Your task to perform on an android device: allow notifications from all sites in the chrome app Image 0: 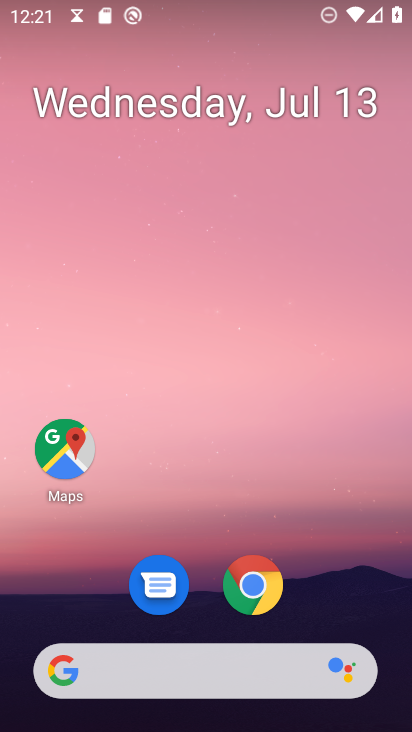
Step 0: click (252, 578)
Your task to perform on an android device: allow notifications from all sites in the chrome app Image 1: 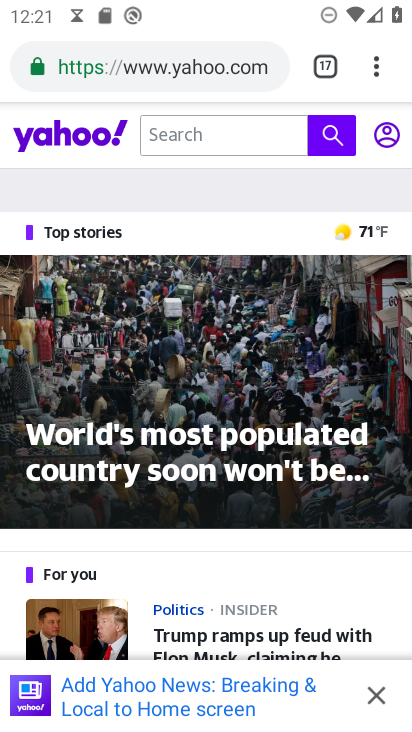
Step 1: drag from (377, 73) to (209, 594)
Your task to perform on an android device: allow notifications from all sites in the chrome app Image 2: 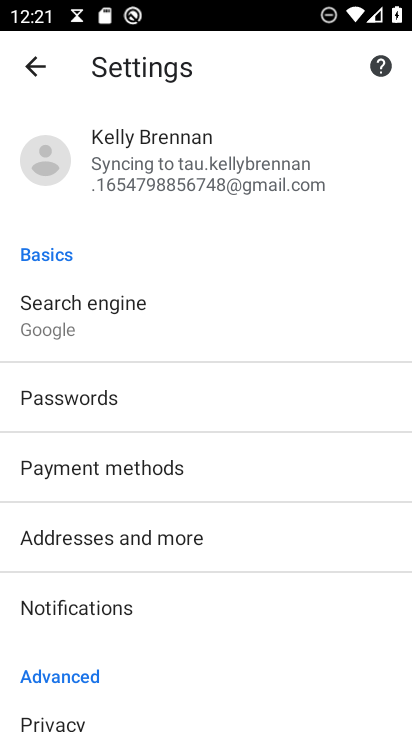
Step 2: drag from (130, 629) to (252, 235)
Your task to perform on an android device: allow notifications from all sites in the chrome app Image 3: 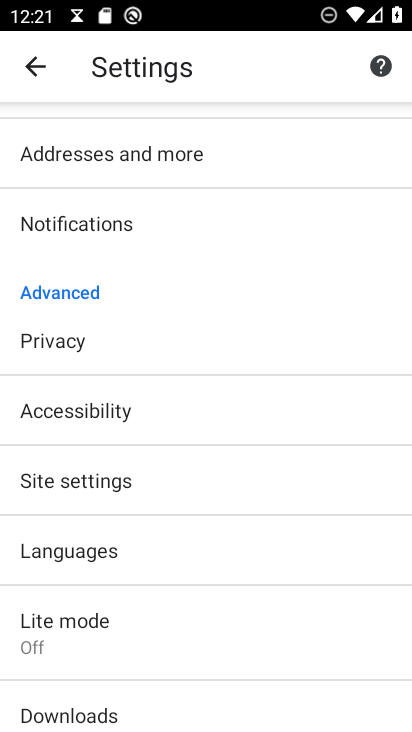
Step 3: click (126, 482)
Your task to perform on an android device: allow notifications from all sites in the chrome app Image 4: 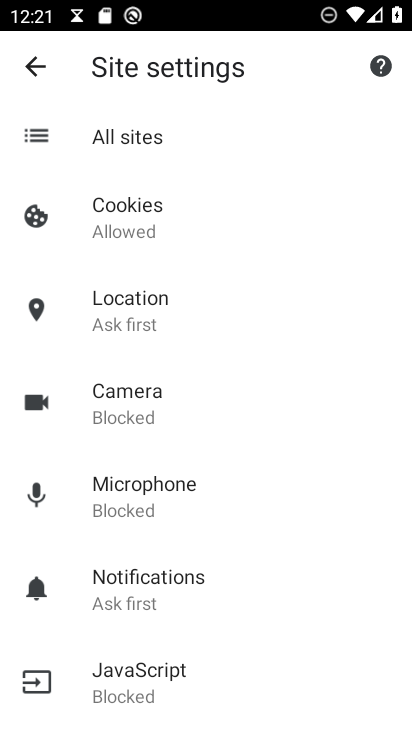
Step 4: click (146, 568)
Your task to perform on an android device: allow notifications from all sites in the chrome app Image 5: 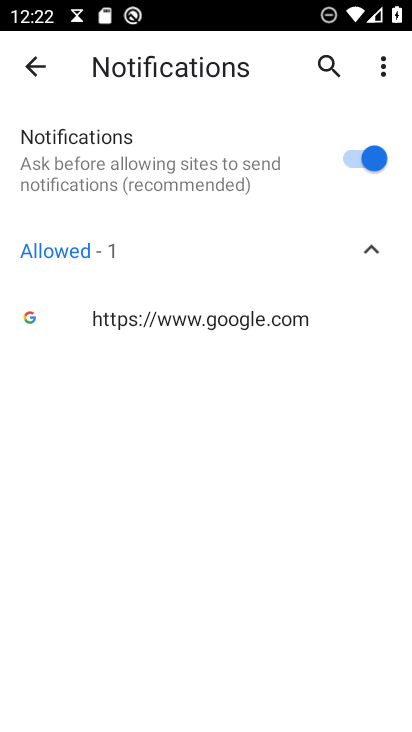
Step 5: task complete